Your task to perform on an android device: Open sound settings Image 0: 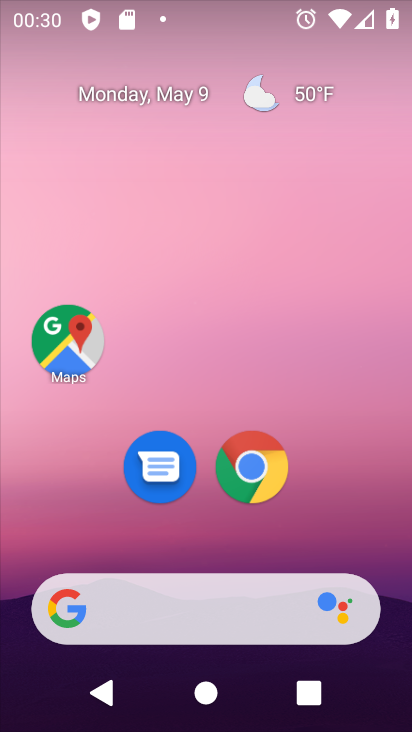
Step 0: press home button
Your task to perform on an android device: Open sound settings Image 1: 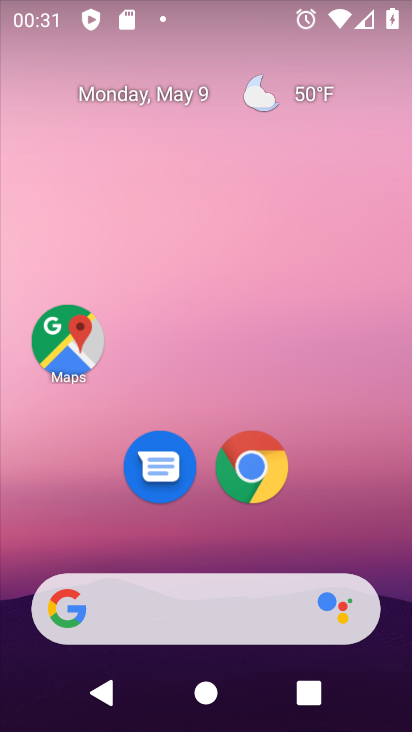
Step 1: drag from (203, 543) to (272, 36)
Your task to perform on an android device: Open sound settings Image 2: 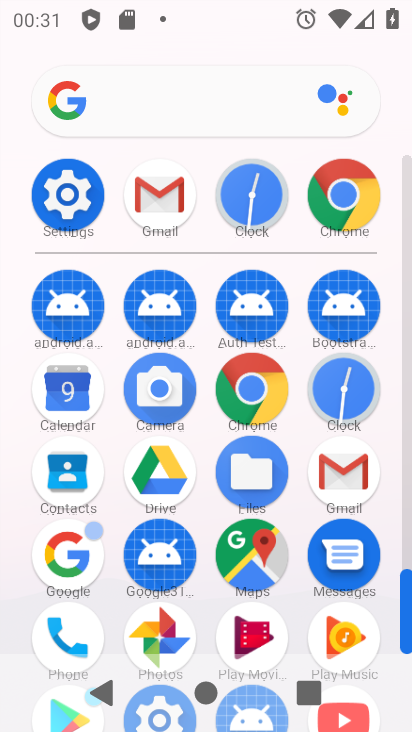
Step 2: click (69, 186)
Your task to perform on an android device: Open sound settings Image 3: 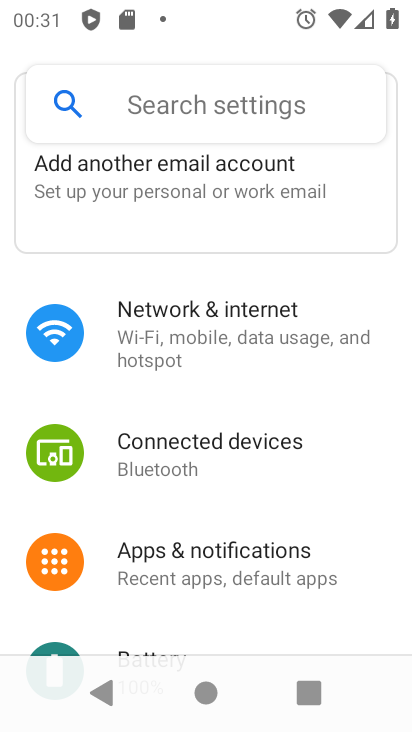
Step 3: drag from (187, 616) to (245, 131)
Your task to perform on an android device: Open sound settings Image 4: 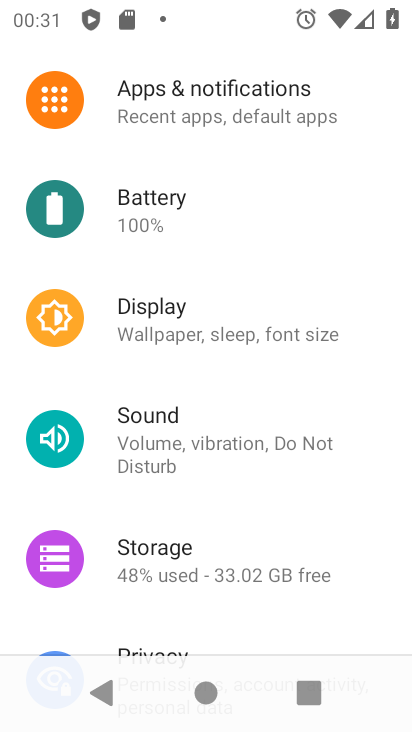
Step 4: click (193, 430)
Your task to perform on an android device: Open sound settings Image 5: 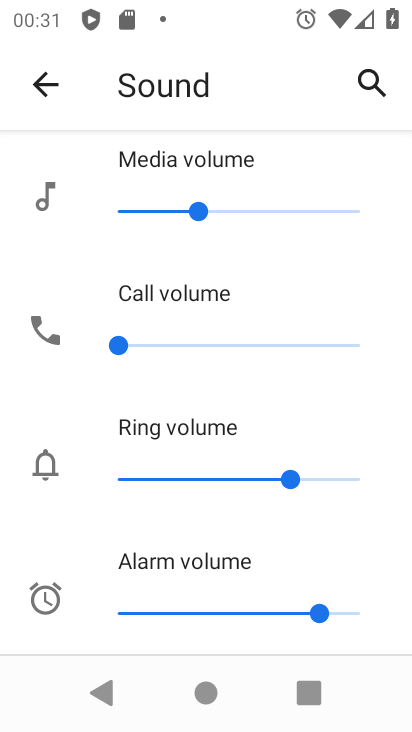
Step 5: drag from (94, 581) to (85, 128)
Your task to perform on an android device: Open sound settings Image 6: 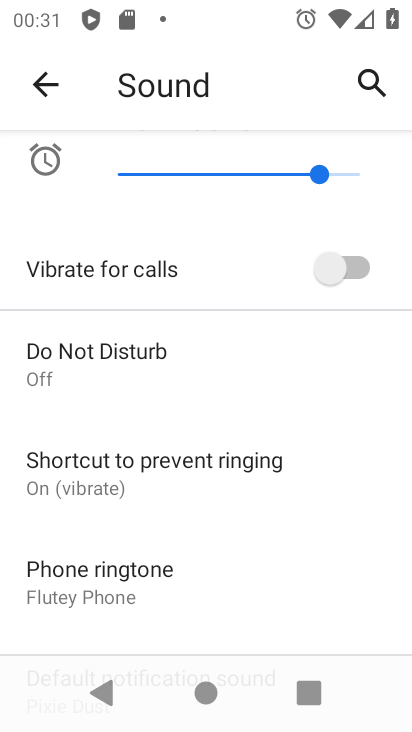
Step 6: drag from (202, 569) to (237, 110)
Your task to perform on an android device: Open sound settings Image 7: 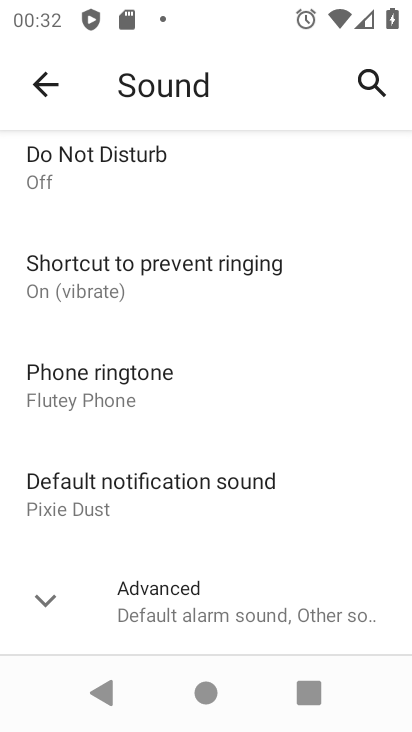
Step 7: click (58, 587)
Your task to perform on an android device: Open sound settings Image 8: 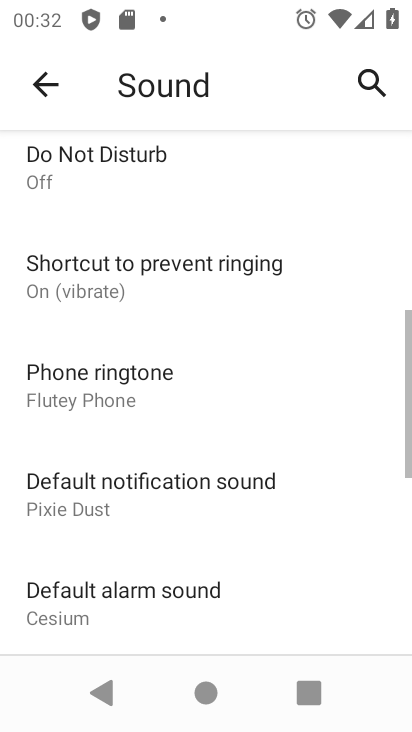
Step 8: task complete